Your task to perform on an android device: turn off javascript in the chrome app Image 0: 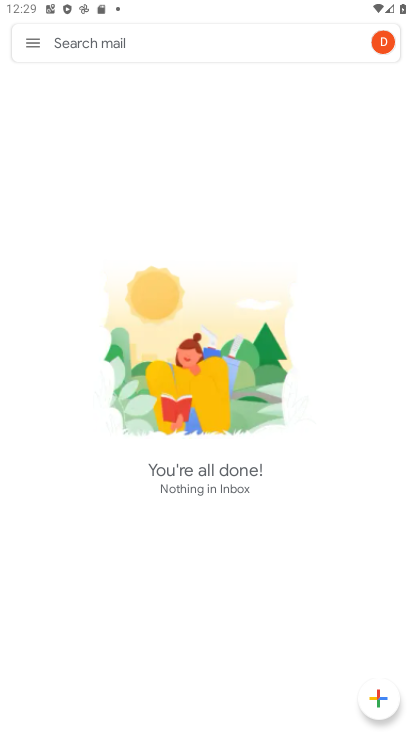
Step 0: press home button
Your task to perform on an android device: turn off javascript in the chrome app Image 1: 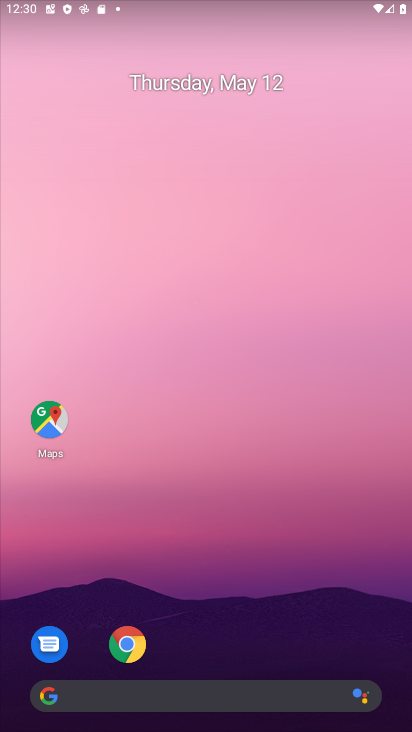
Step 1: click (127, 658)
Your task to perform on an android device: turn off javascript in the chrome app Image 2: 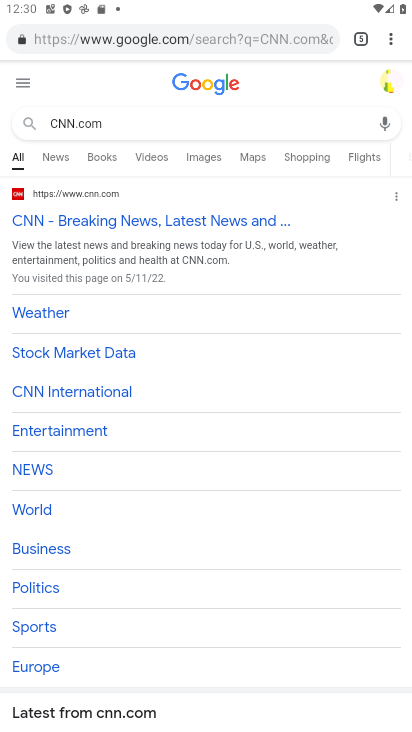
Step 2: click (386, 46)
Your task to perform on an android device: turn off javascript in the chrome app Image 3: 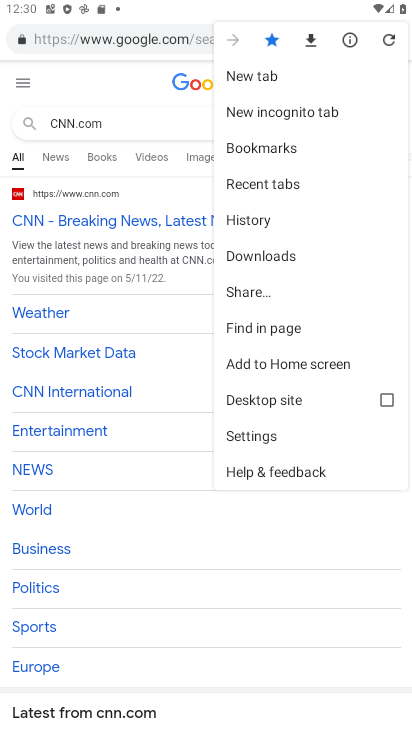
Step 3: click (284, 442)
Your task to perform on an android device: turn off javascript in the chrome app Image 4: 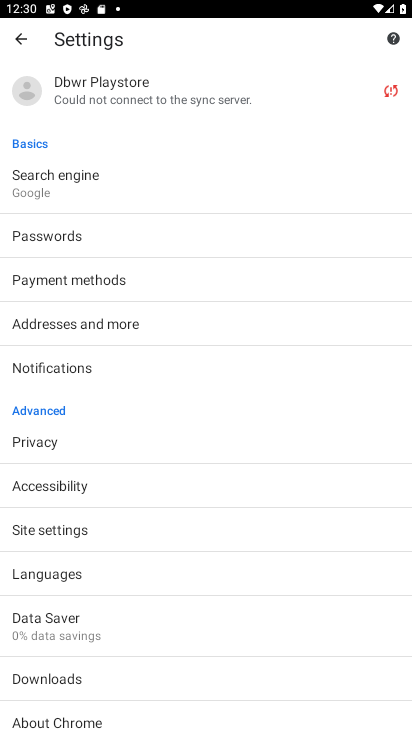
Step 4: click (213, 528)
Your task to perform on an android device: turn off javascript in the chrome app Image 5: 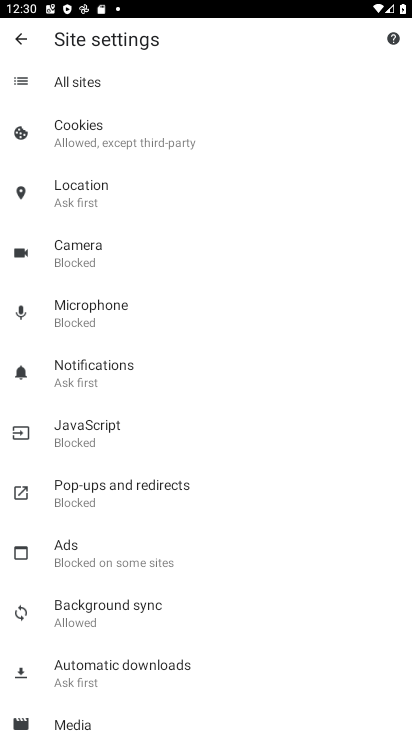
Step 5: click (142, 425)
Your task to perform on an android device: turn off javascript in the chrome app Image 6: 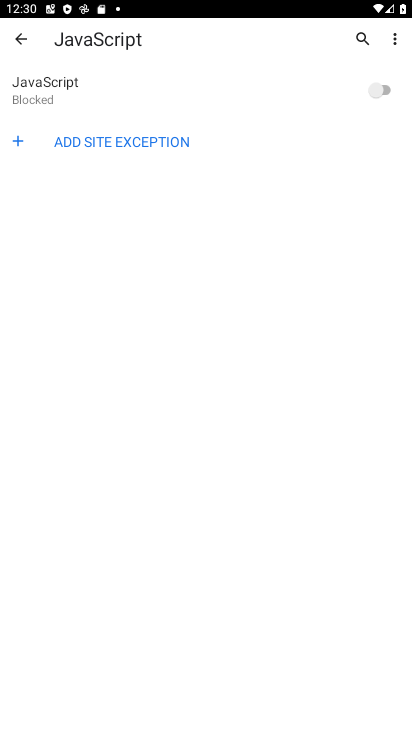
Step 6: task complete